Your task to perform on an android device: toggle javascript in the chrome app Image 0: 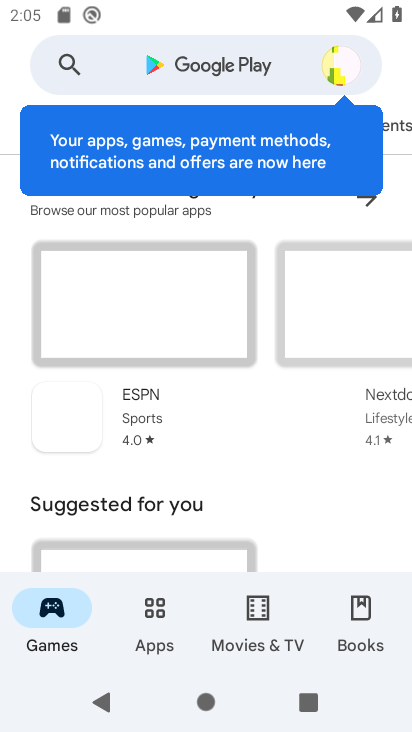
Step 0: press home button
Your task to perform on an android device: toggle javascript in the chrome app Image 1: 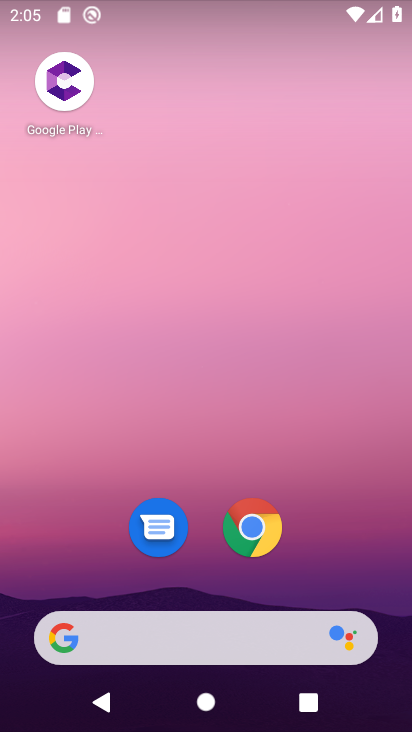
Step 1: click (268, 531)
Your task to perform on an android device: toggle javascript in the chrome app Image 2: 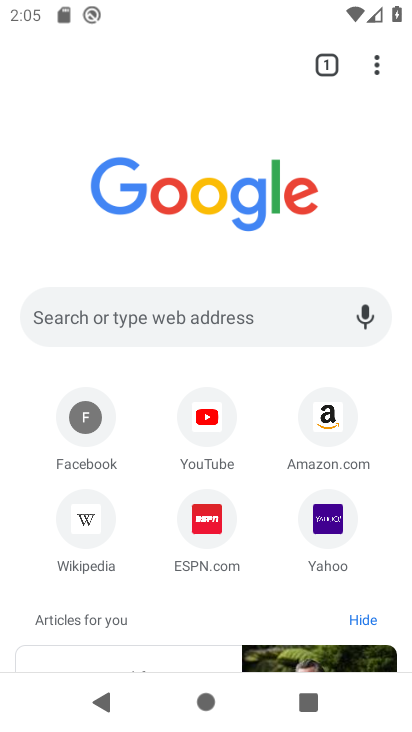
Step 2: click (370, 54)
Your task to perform on an android device: toggle javascript in the chrome app Image 3: 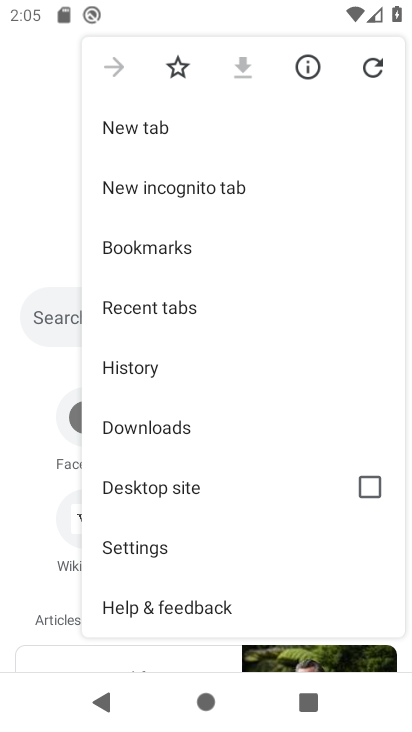
Step 3: click (134, 543)
Your task to perform on an android device: toggle javascript in the chrome app Image 4: 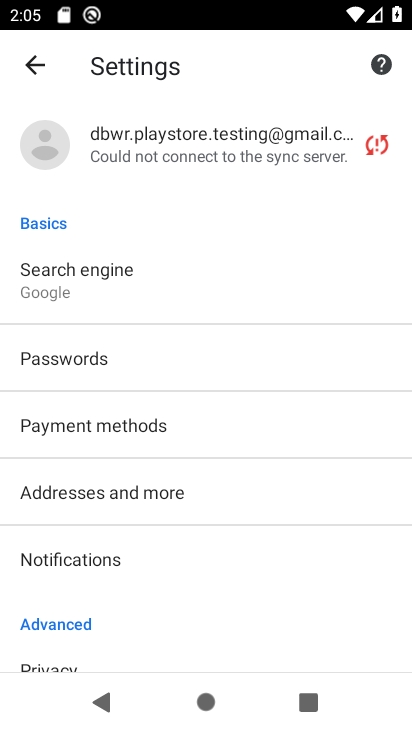
Step 4: drag from (73, 572) to (114, 301)
Your task to perform on an android device: toggle javascript in the chrome app Image 5: 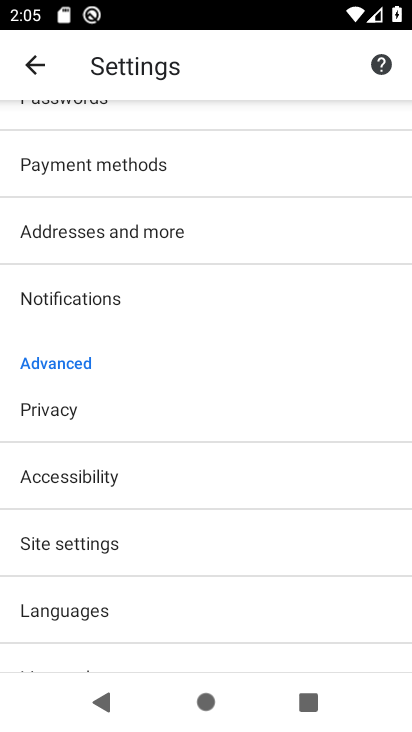
Step 5: click (99, 551)
Your task to perform on an android device: toggle javascript in the chrome app Image 6: 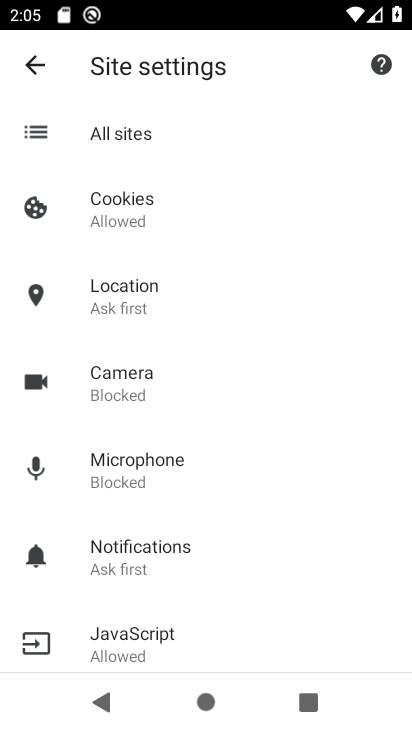
Step 6: click (132, 650)
Your task to perform on an android device: toggle javascript in the chrome app Image 7: 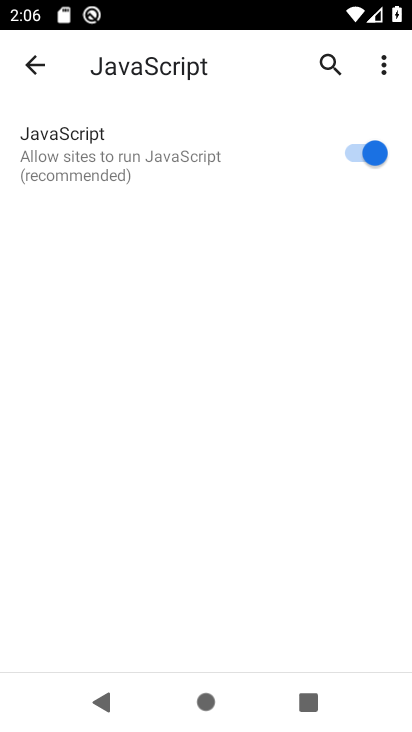
Step 7: click (333, 147)
Your task to perform on an android device: toggle javascript in the chrome app Image 8: 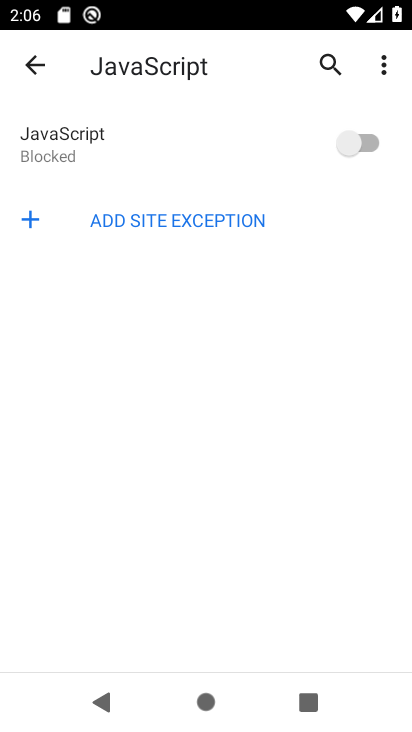
Step 8: task complete